Your task to perform on an android device: turn on sleep mode Image 0: 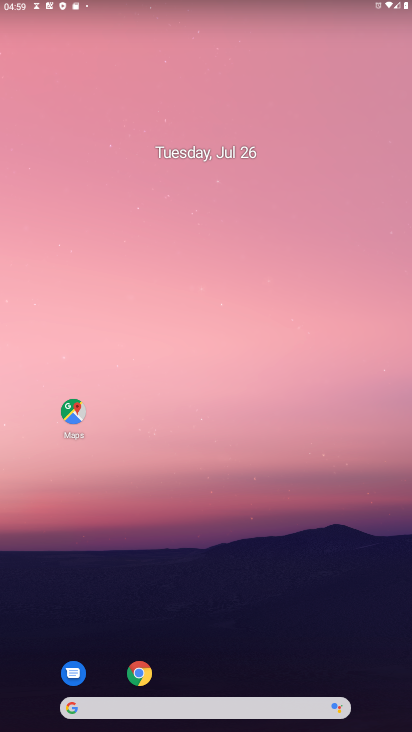
Step 0: drag from (204, 712) to (199, 190)
Your task to perform on an android device: turn on sleep mode Image 1: 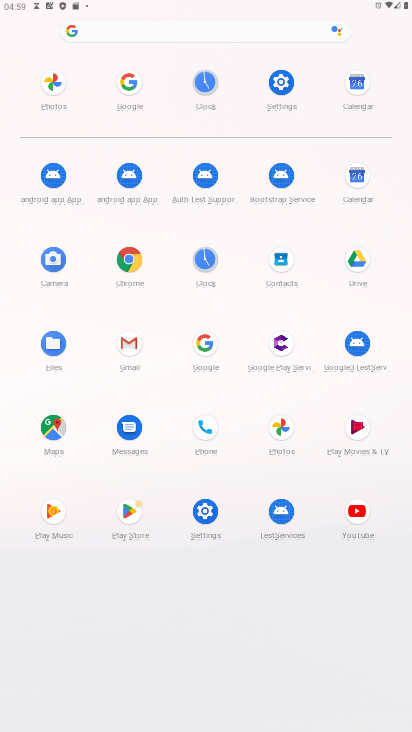
Step 1: click (281, 82)
Your task to perform on an android device: turn on sleep mode Image 2: 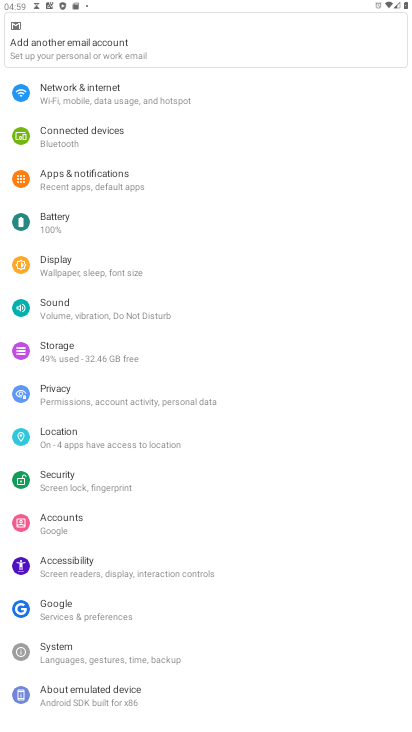
Step 2: click (79, 268)
Your task to perform on an android device: turn on sleep mode Image 3: 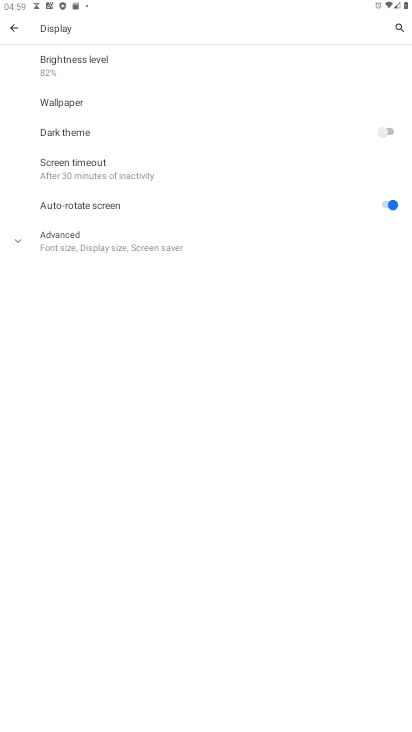
Step 3: click (112, 176)
Your task to perform on an android device: turn on sleep mode Image 4: 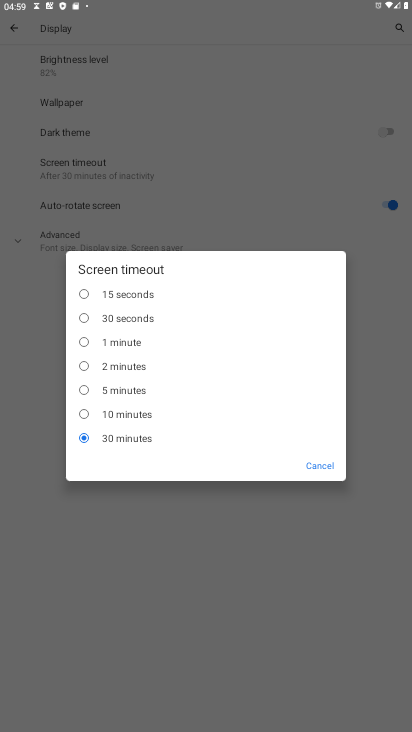
Step 4: click (322, 463)
Your task to perform on an android device: turn on sleep mode Image 5: 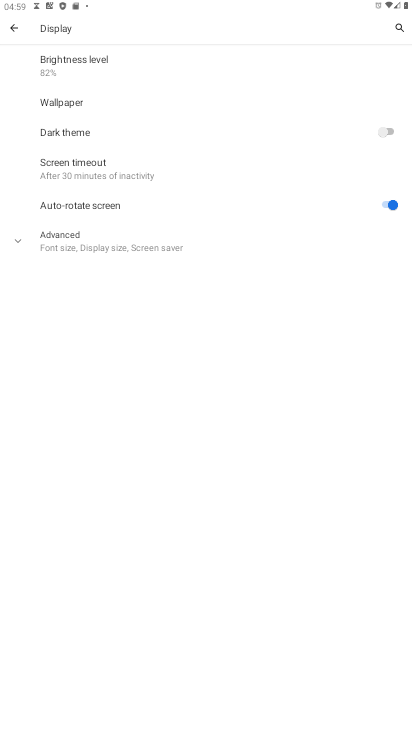
Step 5: click (109, 250)
Your task to perform on an android device: turn on sleep mode Image 6: 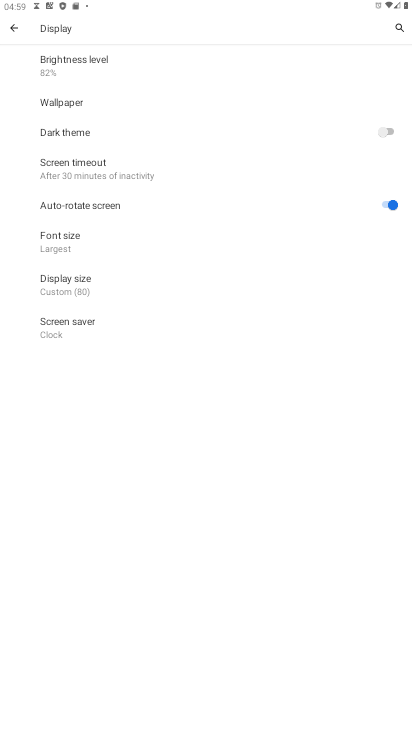
Step 6: click (77, 329)
Your task to perform on an android device: turn on sleep mode Image 7: 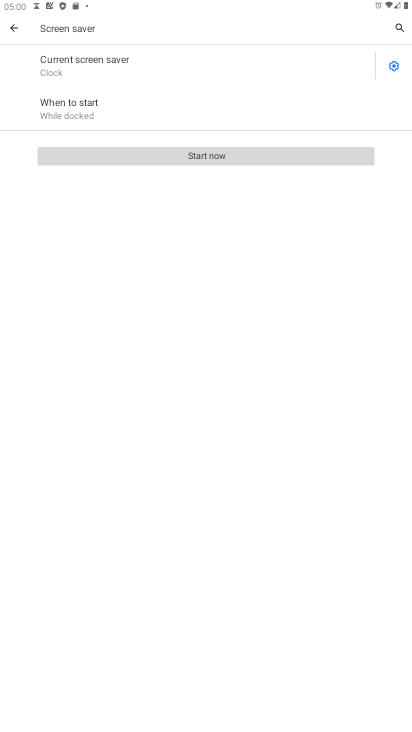
Step 7: click (394, 68)
Your task to perform on an android device: turn on sleep mode Image 8: 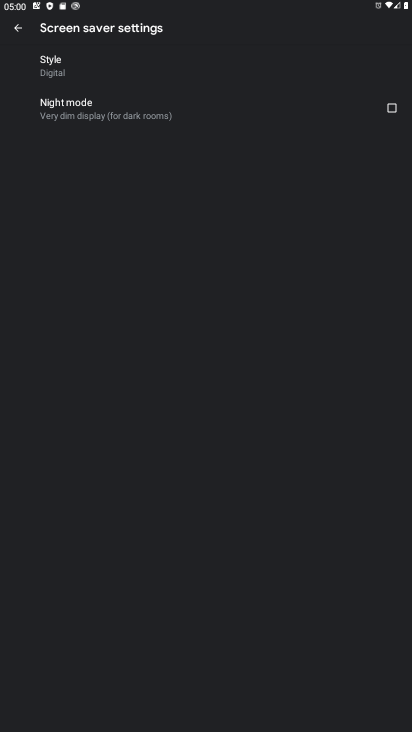
Step 8: task complete